Your task to perform on an android device: snooze an email in the gmail app Image 0: 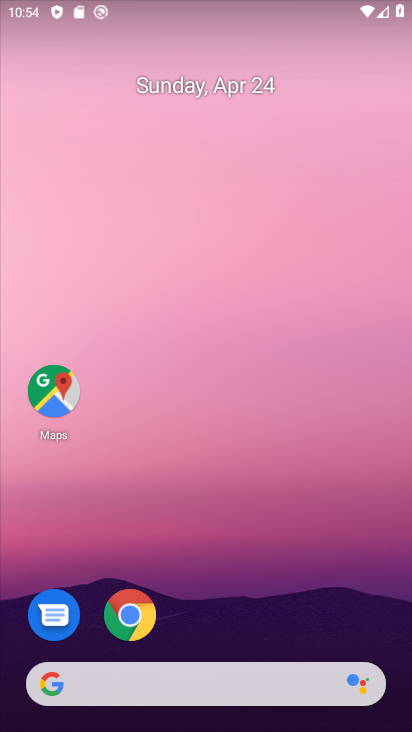
Step 0: drag from (228, 646) to (281, 90)
Your task to perform on an android device: snooze an email in the gmail app Image 1: 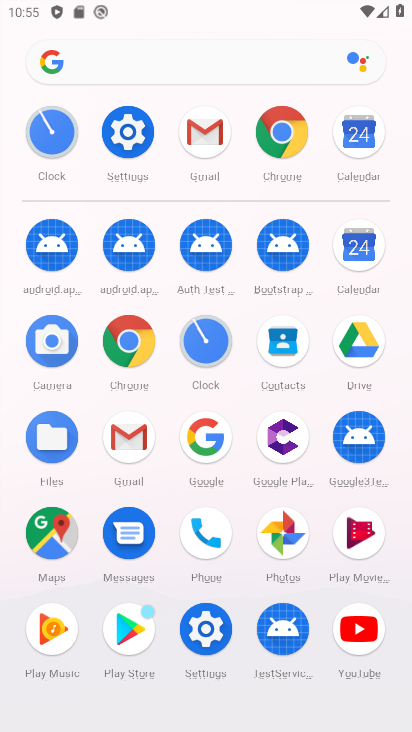
Step 1: click (130, 429)
Your task to perform on an android device: snooze an email in the gmail app Image 2: 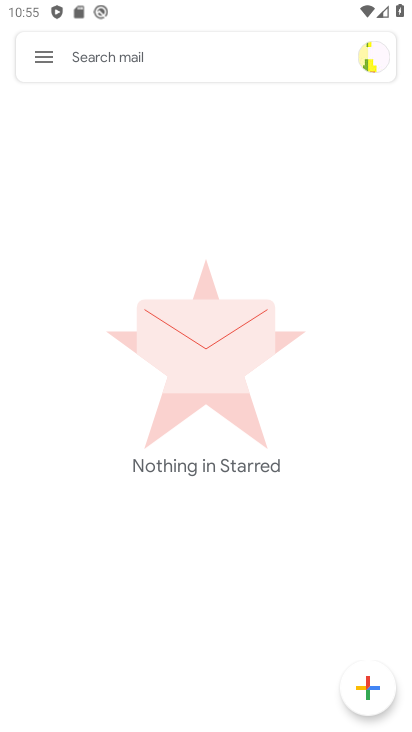
Step 2: click (46, 54)
Your task to perform on an android device: snooze an email in the gmail app Image 3: 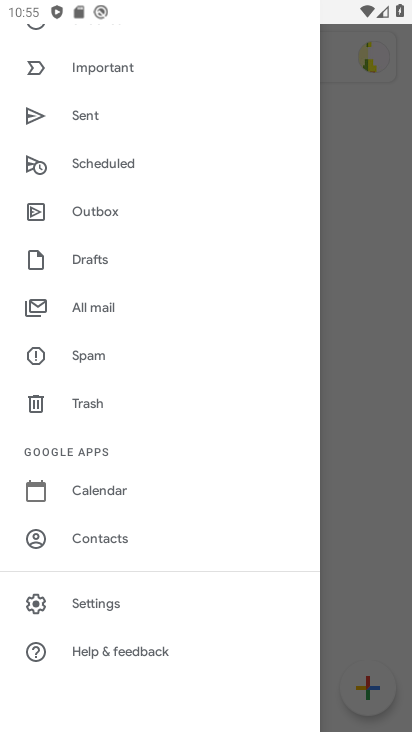
Step 3: click (99, 302)
Your task to perform on an android device: snooze an email in the gmail app Image 4: 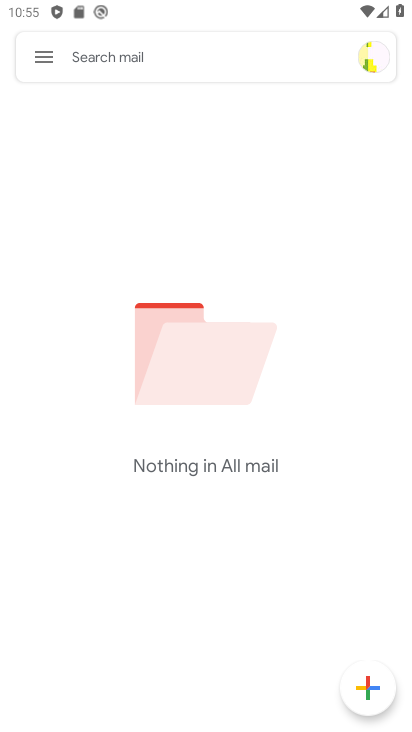
Step 4: task complete